Your task to perform on an android device: What is the news today? Image 0: 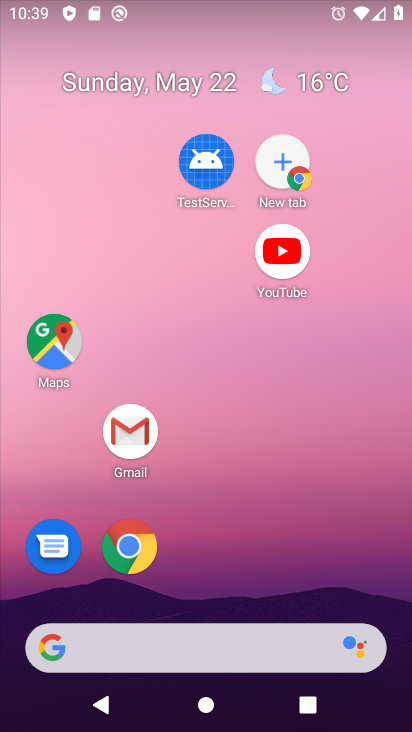
Step 0: drag from (254, 710) to (194, 213)
Your task to perform on an android device: What is the news today? Image 1: 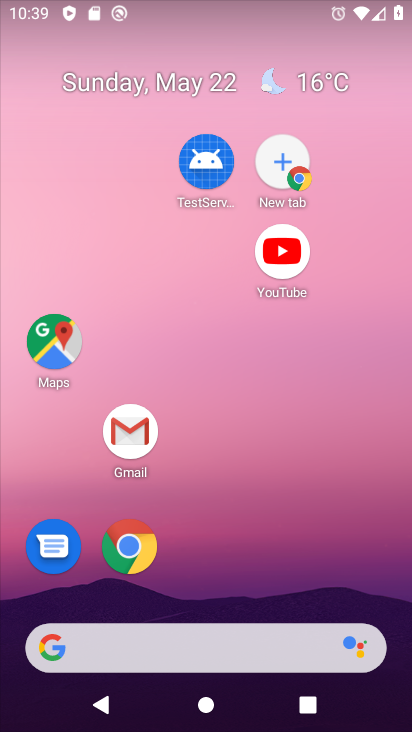
Step 1: drag from (4, 208) to (399, 488)
Your task to perform on an android device: What is the news today? Image 2: 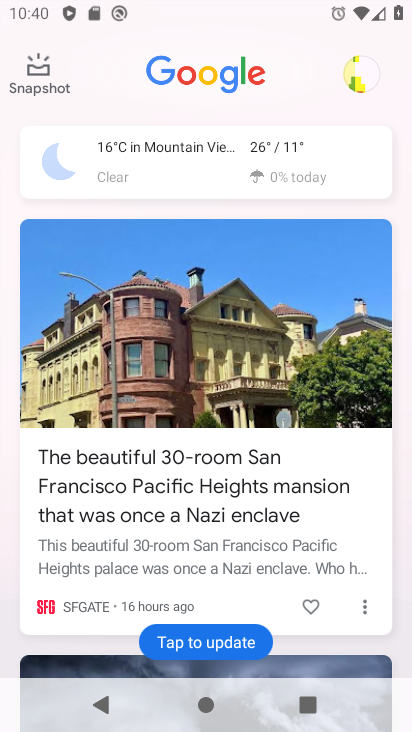
Step 2: drag from (188, 524) to (175, 99)
Your task to perform on an android device: What is the news today? Image 3: 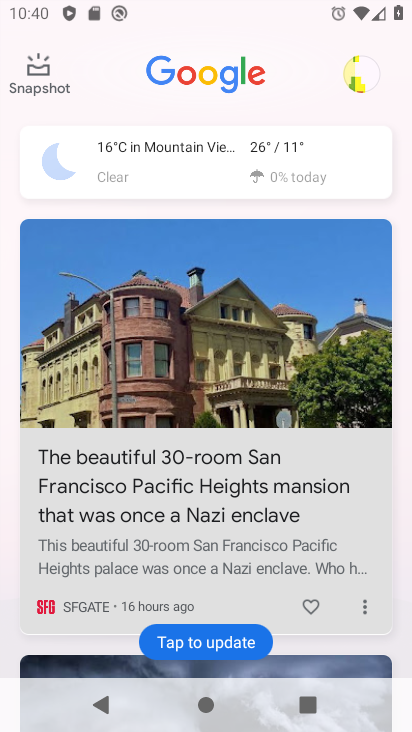
Step 3: drag from (245, 392) to (180, 189)
Your task to perform on an android device: What is the news today? Image 4: 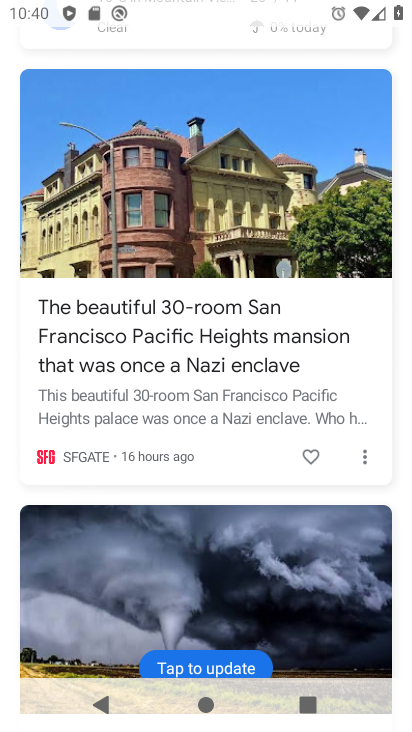
Step 4: drag from (179, 364) to (138, 81)
Your task to perform on an android device: What is the news today? Image 5: 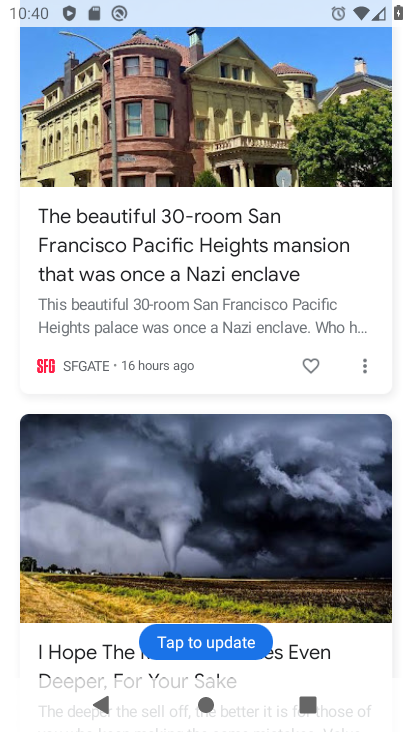
Step 5: drag from (232, 471) to (201, 206)
Your task to perform on an android device: What is the news today? Image 6: 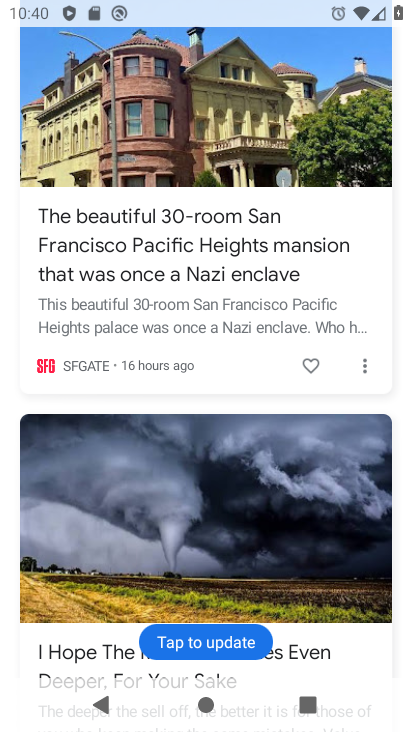
Step 6: click (275, 133)
Your task to perform on an android device: What is the news today? Image 7: 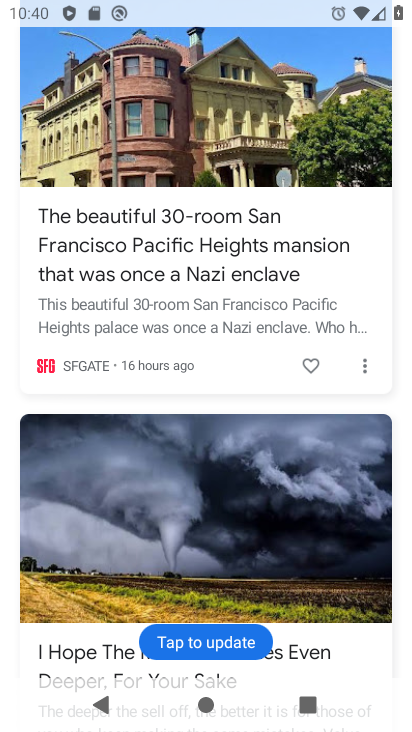
Step 7: task complete